Your task to perform on an android device: Show me popular videos on Youtube Image 0: 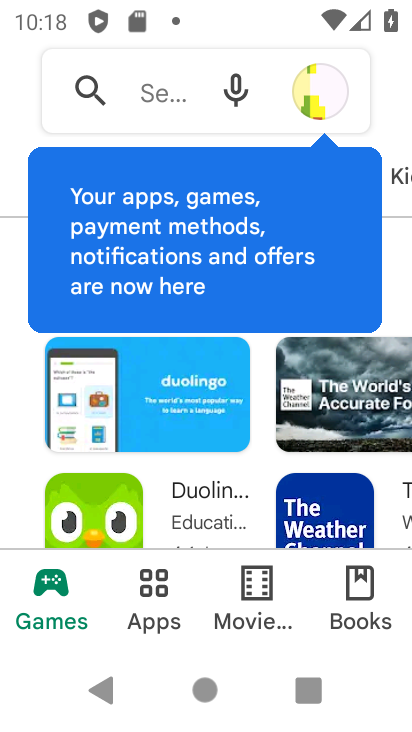
Step 0: press home button
Your task to perform on an android device: Show me popular videos on Youtube Image 1: 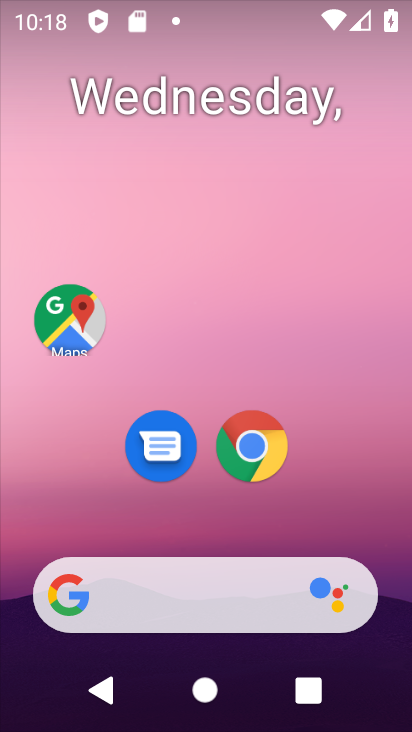
Step 1: drag from (88, 549) to (195, 112)
Your task to perform on an android device: Show me popular videos on Youtube Image 2: 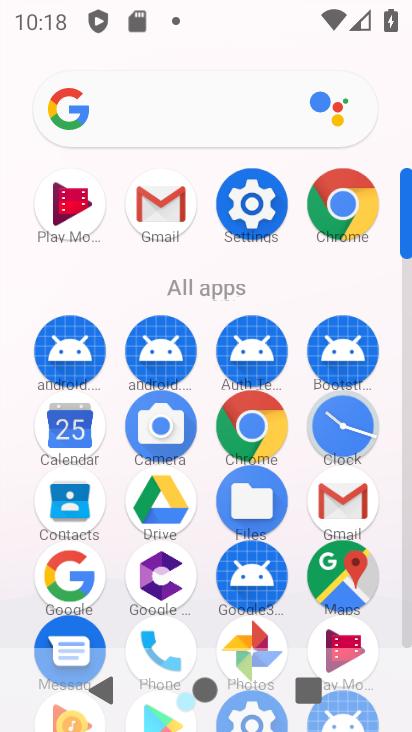
Step 2: drag from (174, 687) to (308, 252)
Your task to perform on an android device: Show me popular videos on Youtube Image 3: 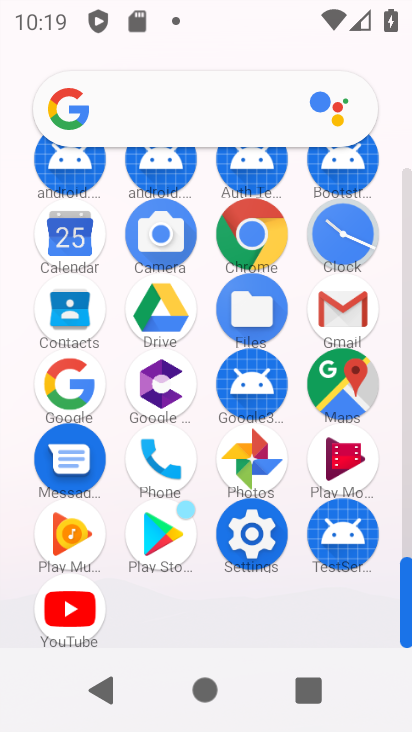
Step 3: click (73, 626)
Your task to perform on an android device: Show me popular videos on Youtube Image 4: 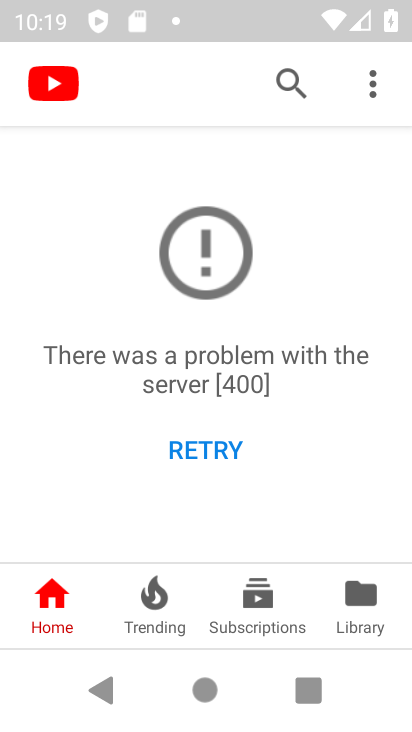
Step 4: click (380, 615)
Your task to perform on an android device: Show me popular videos on Youtube Image 5: 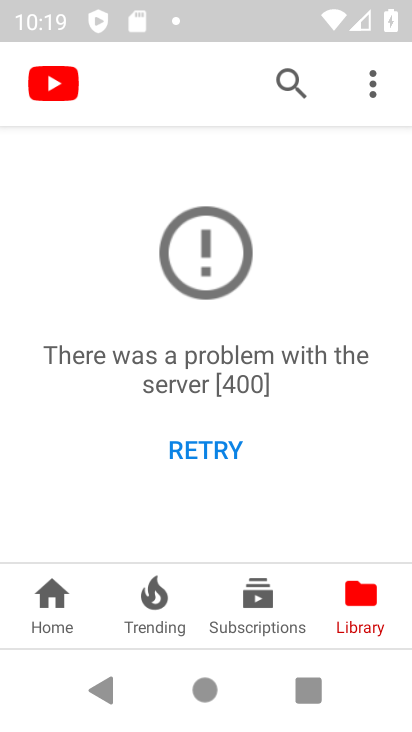
Step 5: task complete